Your task to perform on an android device: turn off wifi Image 0: 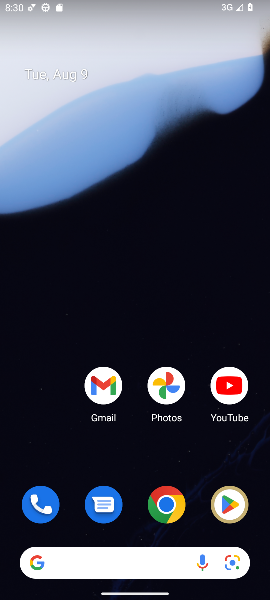
Step 0: drag from (135, 478) to (140, 4)
Your task to perform on an android device: turn off wifi Image 1: 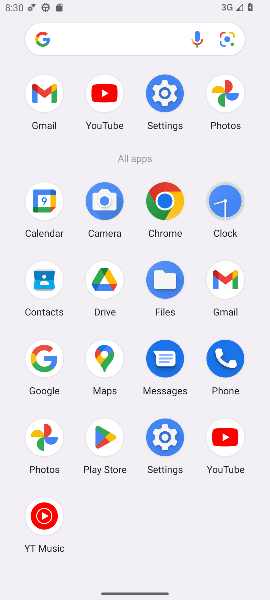
Step 1: click (165, 85)
Your task to perform on an android device: turn off wifi Image 2: 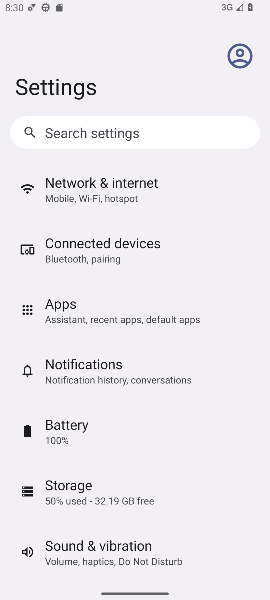
Step 2: click (104, 184)
Your task to perform on an android device: turn off wifi Image 3: 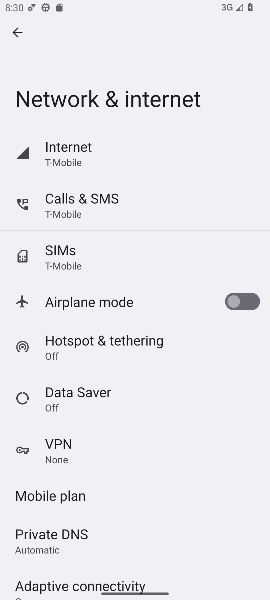
Step 3: click (68, 147)
Your task to perform on an android device: turn off wifi Image 4: 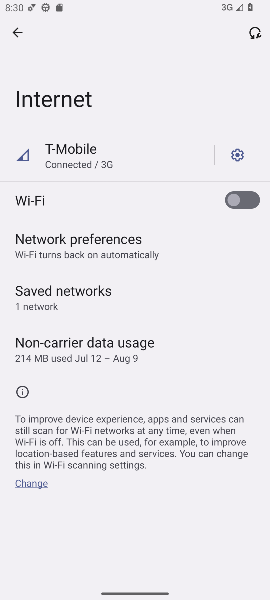
Step 4: task complete